Your task to perform on an android device: Add "razer kraken" to the cart on ebay Image 0: 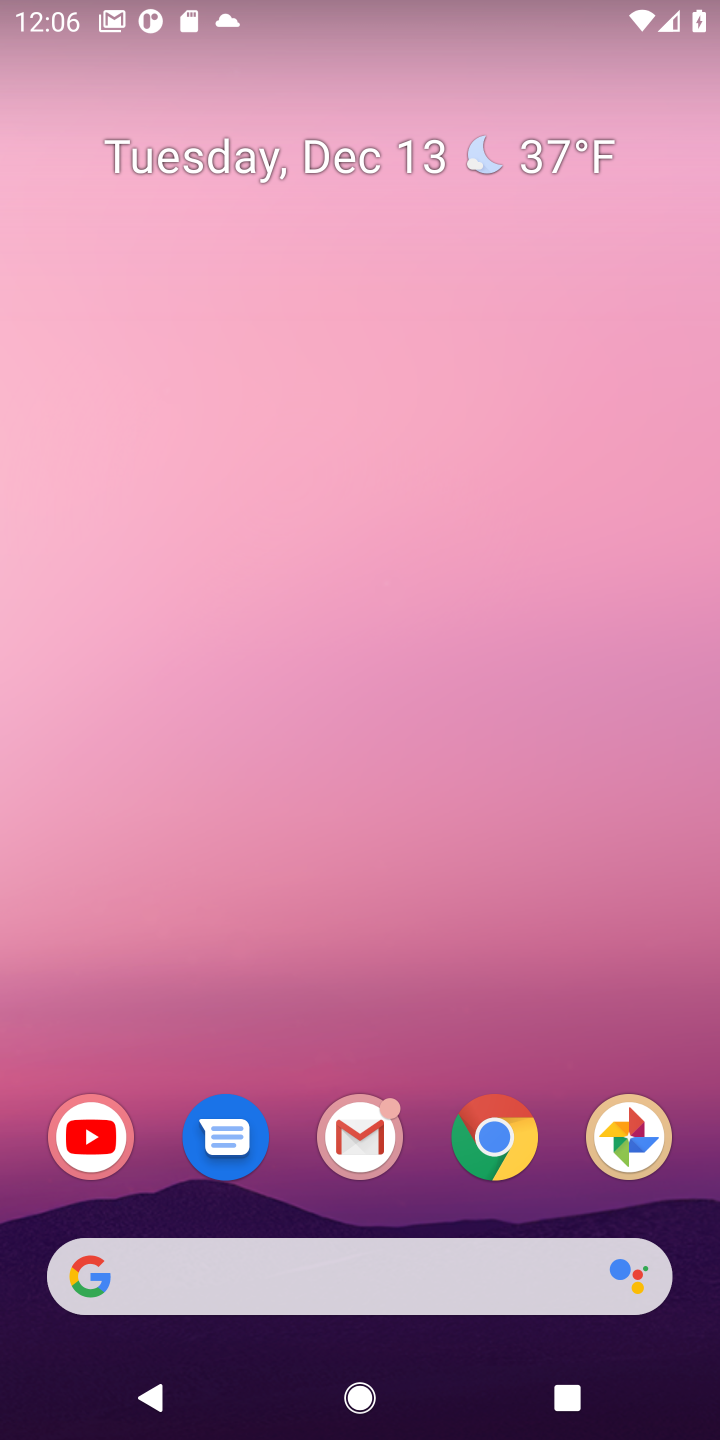
Step 0: click (482, 1304)
Your task to perform on an android device: Add "razer kraken" to the cart on ebay Image 1: 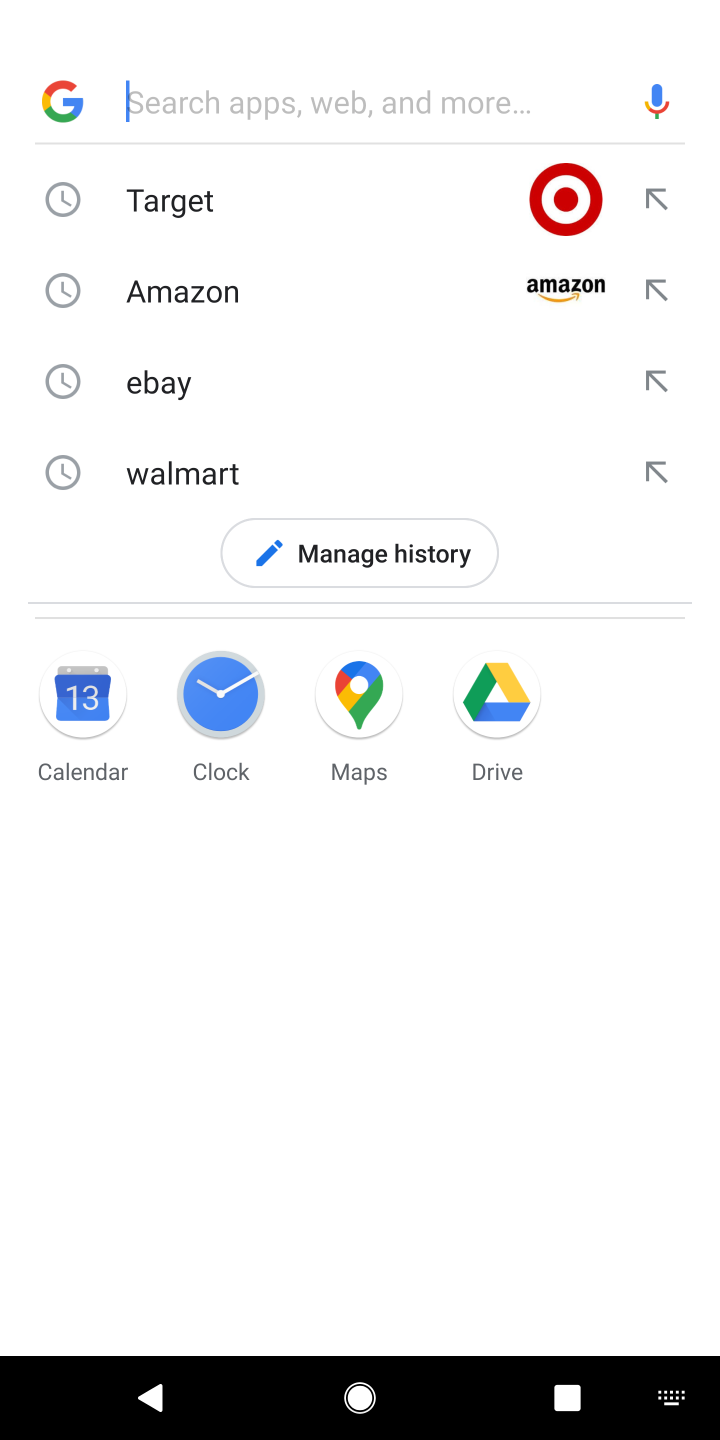
Step 1: click (138, 368)
Your task to perform on an android device: Add "razer kraken" to the cart on ebay Image 2: 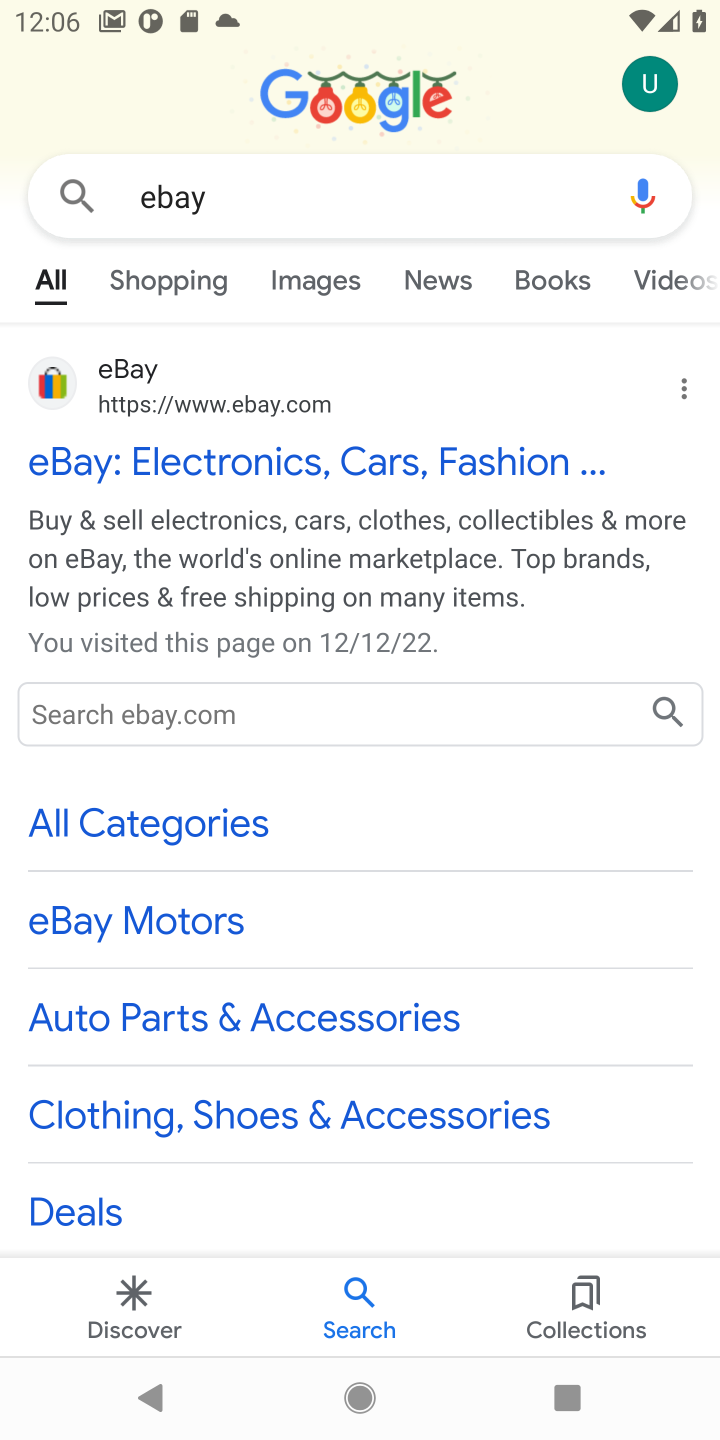
Step 2: click (140, 471)
Your task to perform on an android device: Add "razer kraken" to the cart on ebay Image 3: 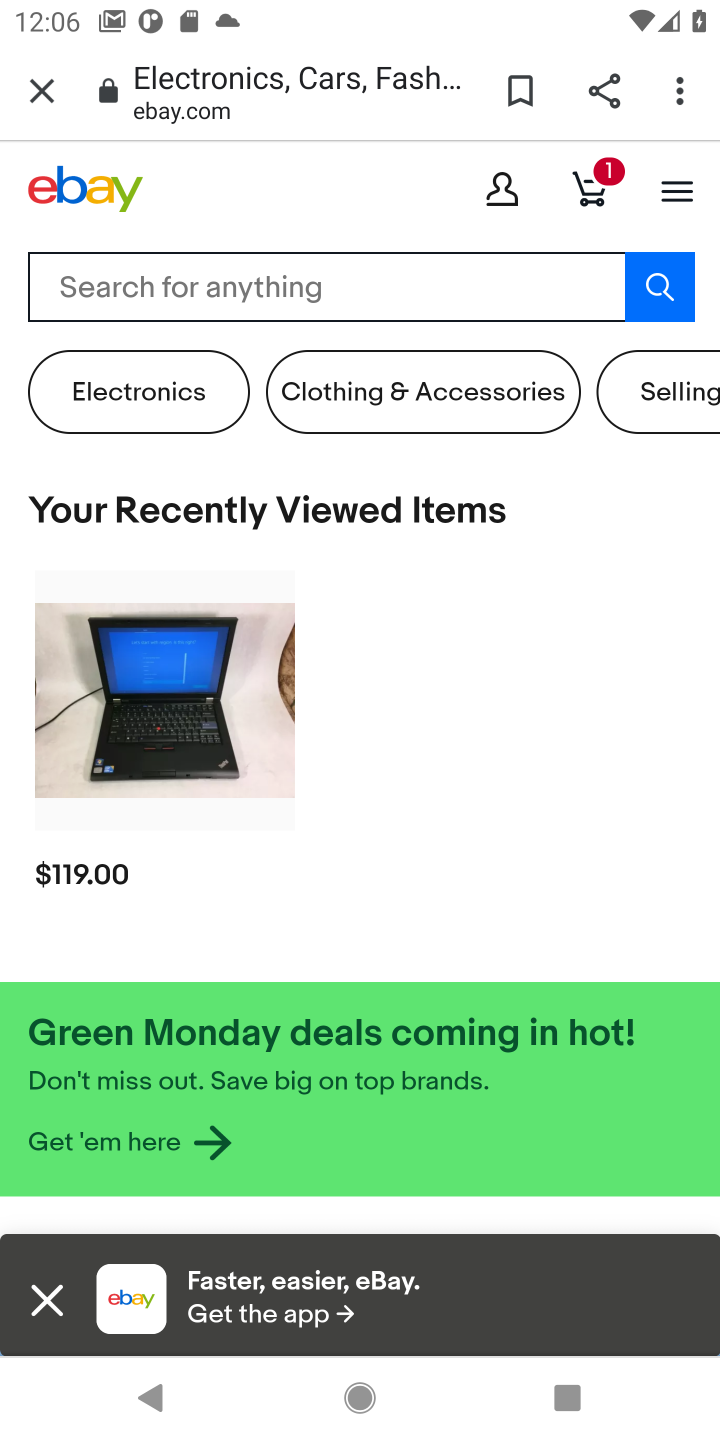
Step 3: click (307, 296)
Your task to perform on an android device: Add "razer kraken" to the cart on ebay Image 4: 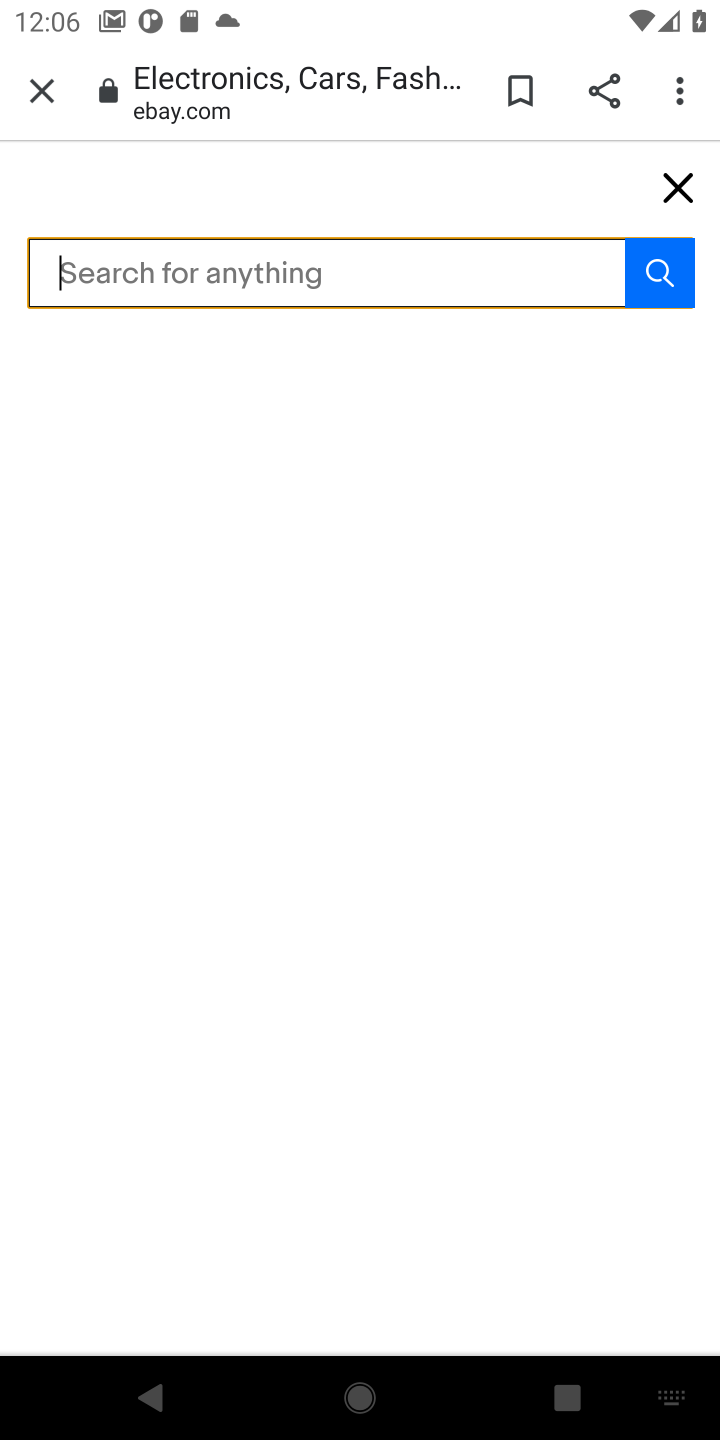
Step 4: type "razer karken"
Your task to perform on an android device: Add "razer kraken" to the cart on ebay Image 5: 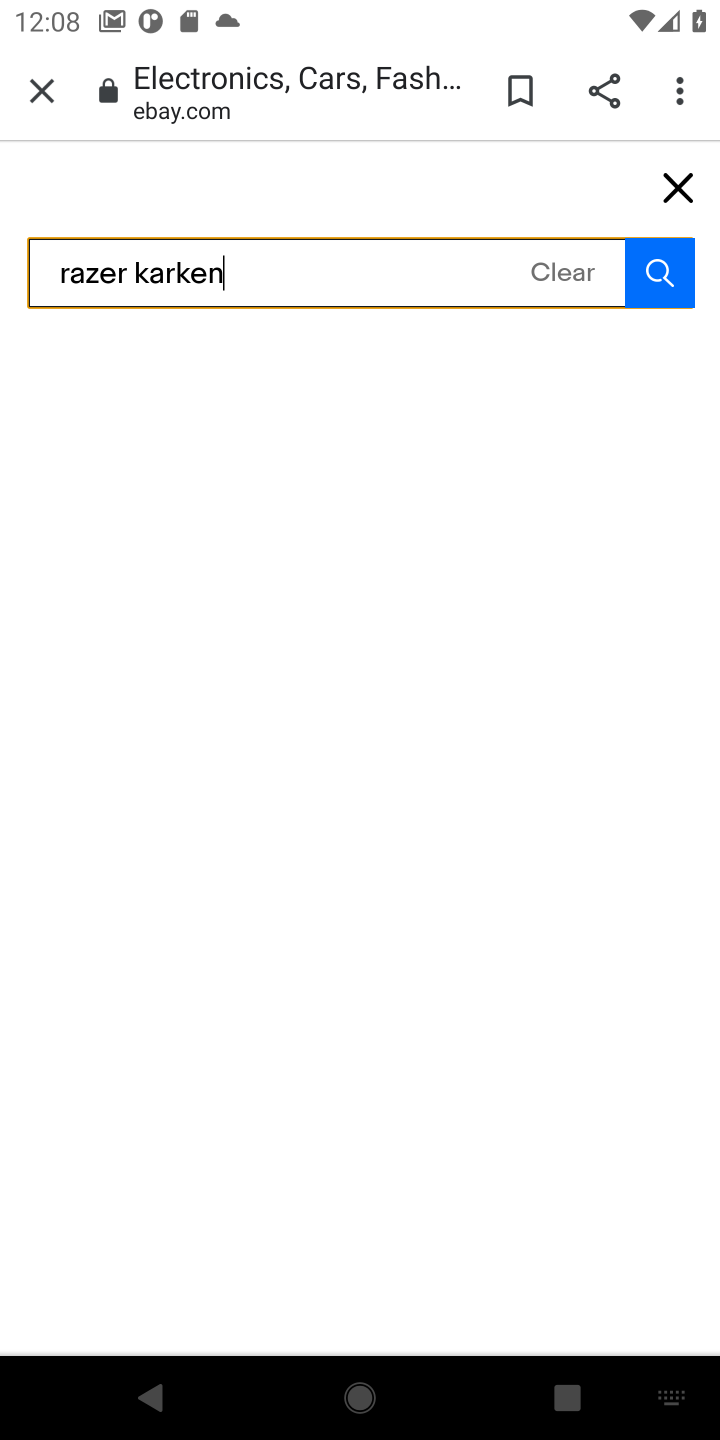
Step 5: task complete